Your task to perform on an android device: Is it going to rain this weekend? Image 0: 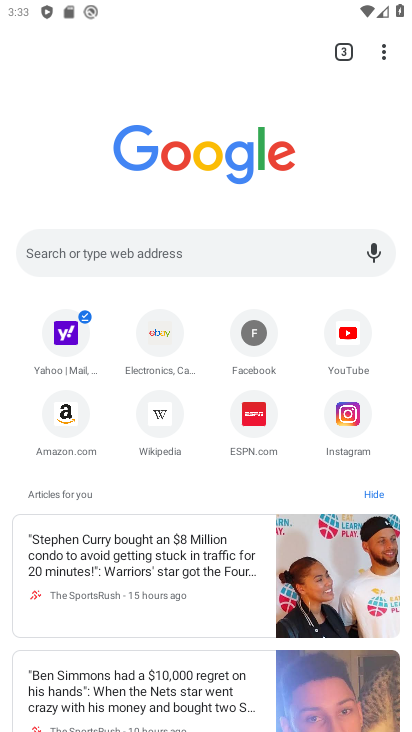
Step 0: press back button
Your task to perform on an android device: Is it going to rain this weekend? Image 1: 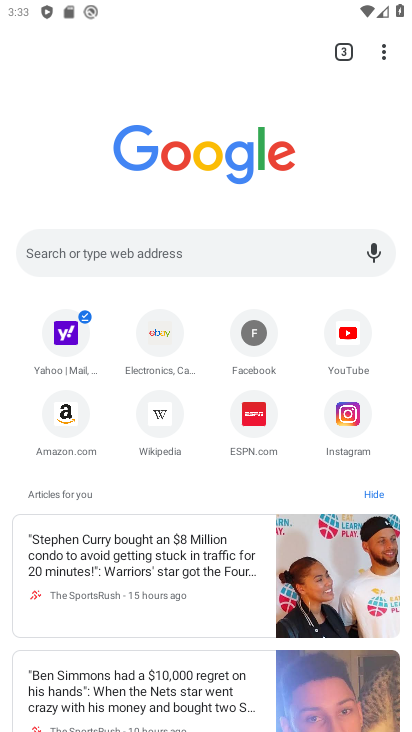
Step 1: press back button
Your task to perform on an android device: Is it going to rain this weekend? Image 2: 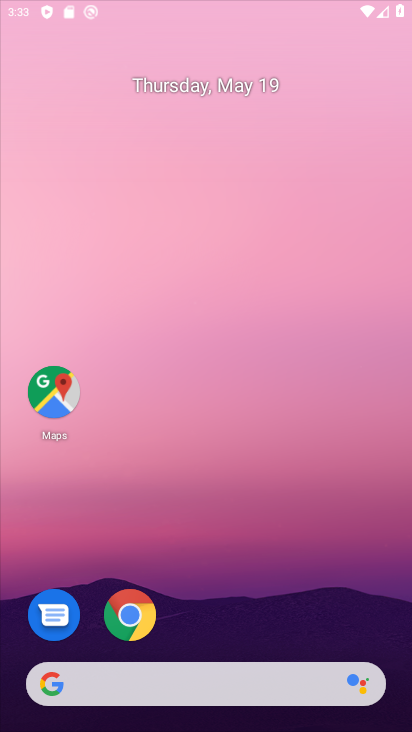
Step 2: press back button
Your task to perform on an android device: Is it going to rain this weekend? Image 3: 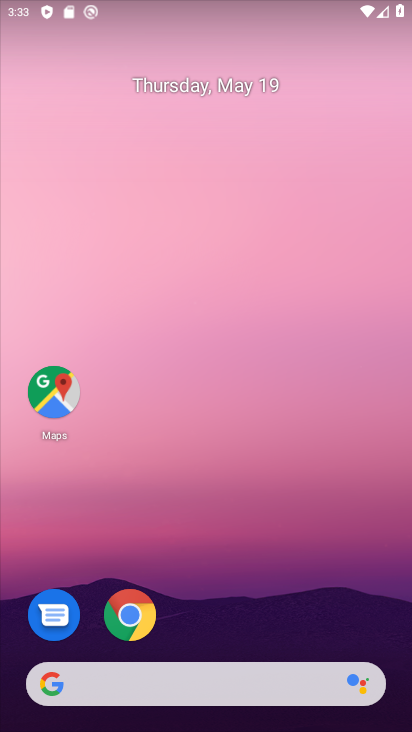
Step 3: drag from (14, 243) to (398, 407)
Your task to perform on an android device: Is it going to rain this weekend? Image 4: 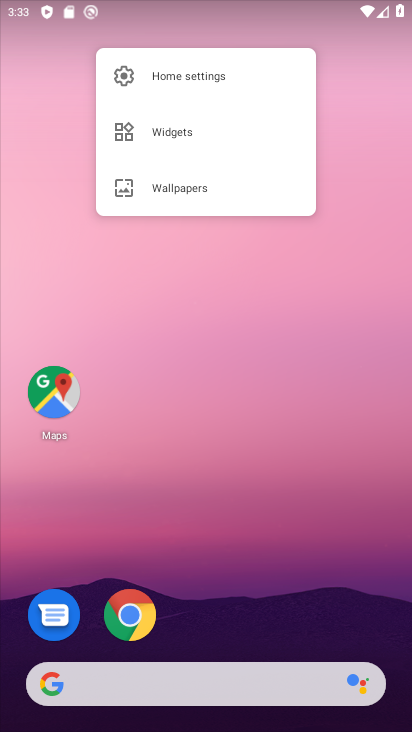
Step 4: drag from (23, 236) to (392, 418)
Your task to perform on an android device: Is it going to rain this weekend? Image 5: 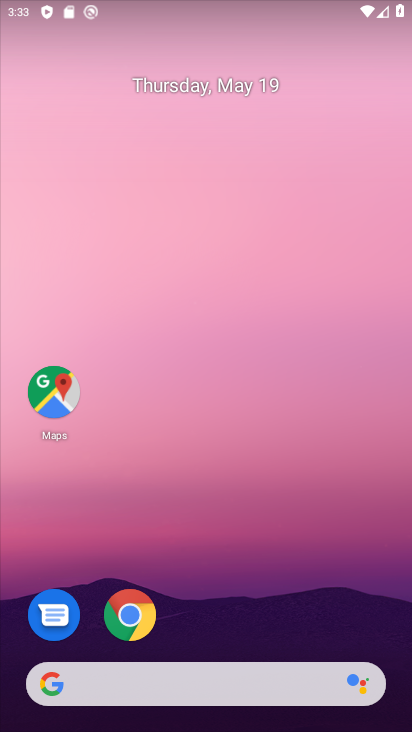
Step 5: drag from (16, 257) to (344, 457)
Your task to perform on an android device: Is it going to rain this weekend? Image 6: 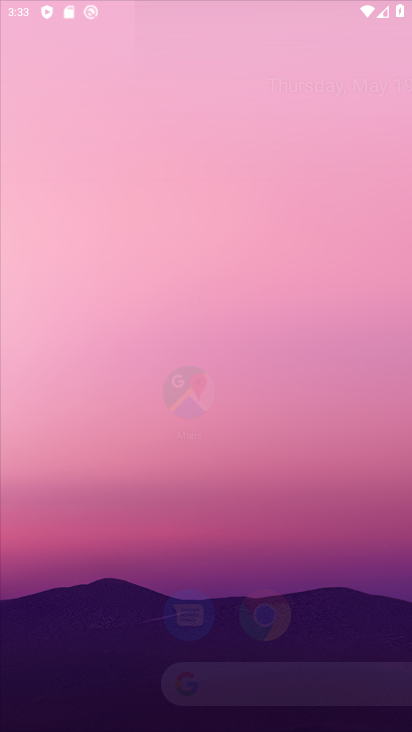
Step 6: drag from (152, 248) to (404, 258)
Your task to perform on an android device: Is it going to rain this weekend? Image 7: 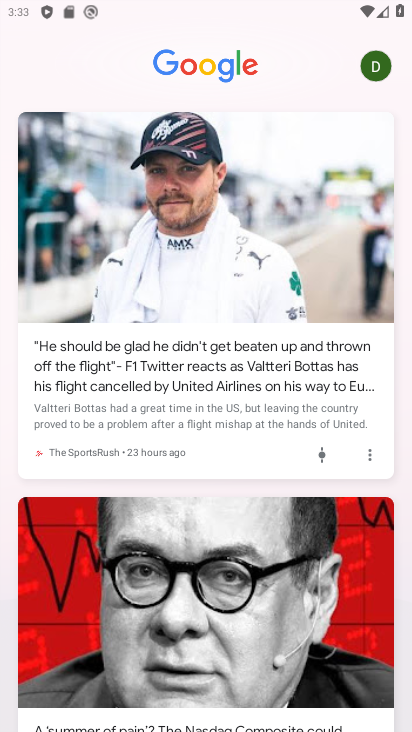
Step 7: drag from (62, 235) to (376, 439)
Your task to perform on an android device: Is it going to rain this weekend? Image 8: 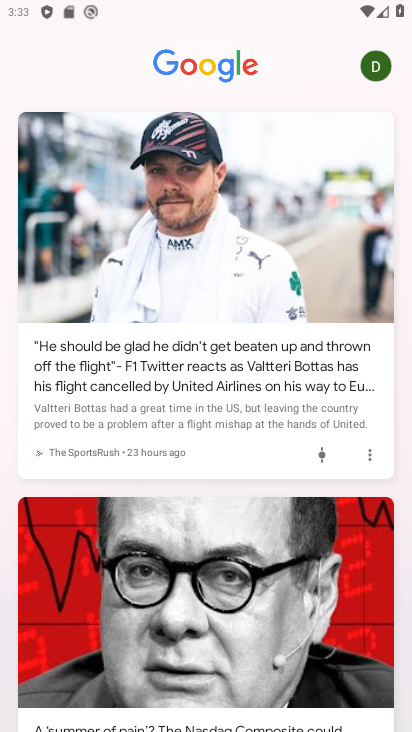
Step 8: drag from (186, 169) to (239, 568)
Your task to perform on an android device: Is it going to rain this weekend? Image 9: 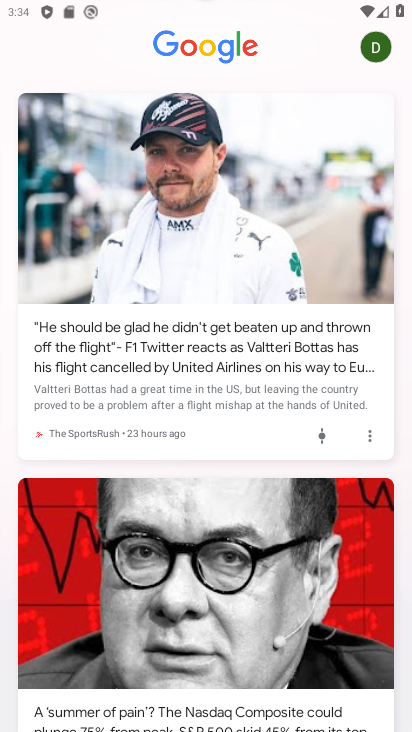
Step 9: click (213, 585)
Your task to perform on an android device: Is it going to rain this weekend? Image 10: 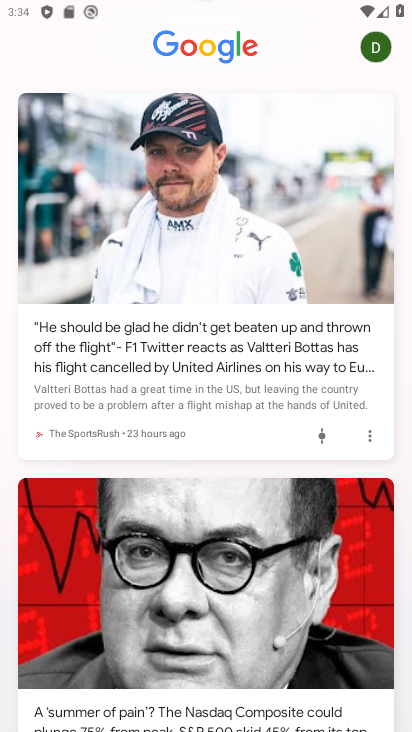
Step 10: task complete